Your task to perform on an android device: allow notifications from all sites in the chrome app Image 0: 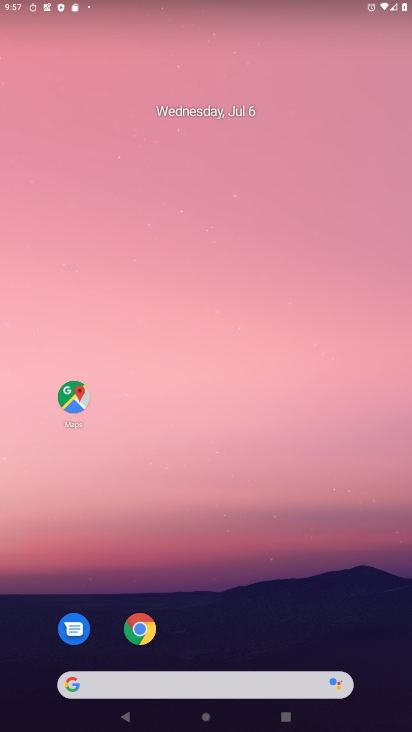
Step 0: click (136, 642)
Your task to perform on an android device: allow notifications from all sites in the chrome app Image 1: 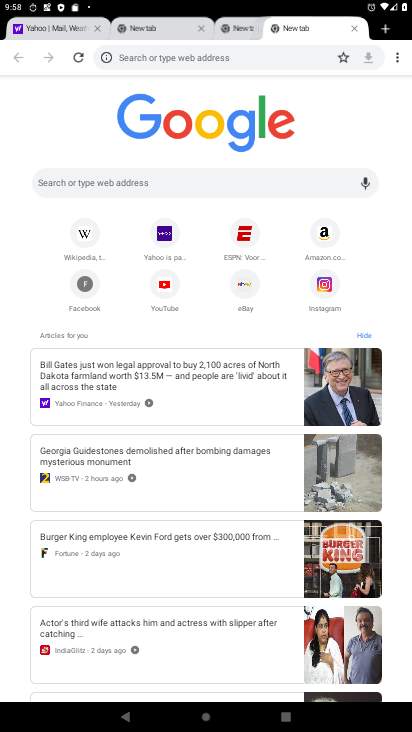
Step 1: press home button
Your task to perform on an android device: allow notifications from all sites in the chrome app Image 2: 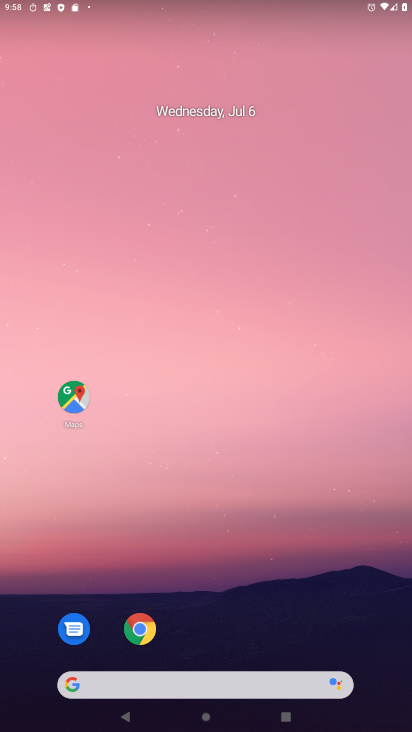
Step 2: drag from (41, 621) to (288, 45)
Your task to perform on an android device: allow notifications from all sites in the chrome app Image 3: 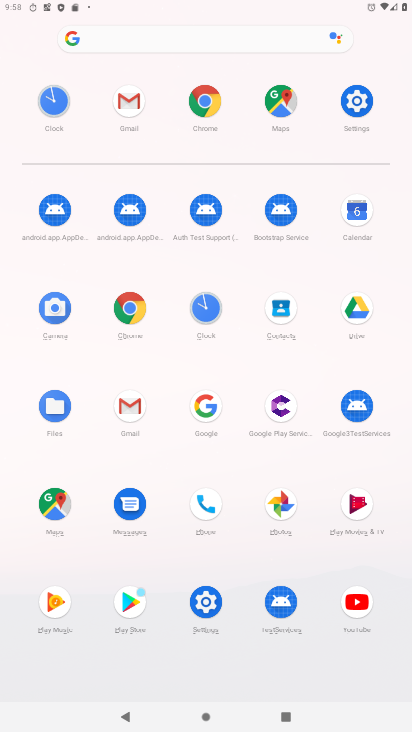
Step 3: click (366, 103)
Your task to perform on an android device: allow notifications from all sites in the chrome app Image 4: 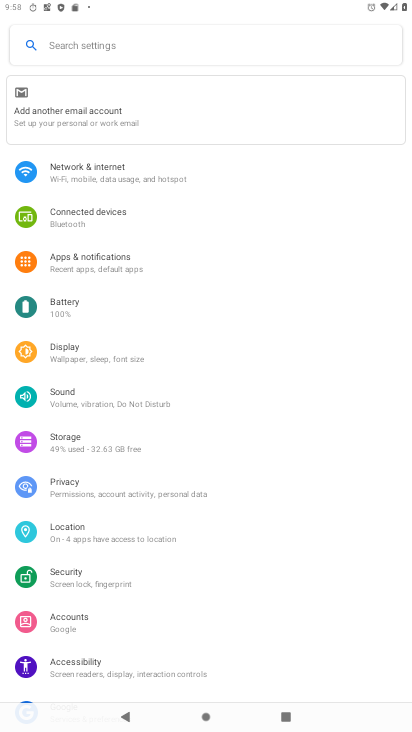
Step 4: click (157, 265)
Your task to perform on an android device: allow notifications from all sites in the chrome app Image 5: 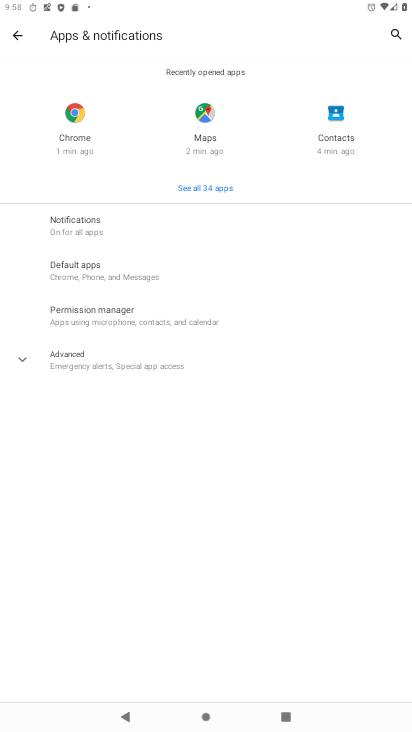
Step 5: click (84, 227)
Your task to perform on an android device: allow notifications from all sites in the chrome app Image 6: 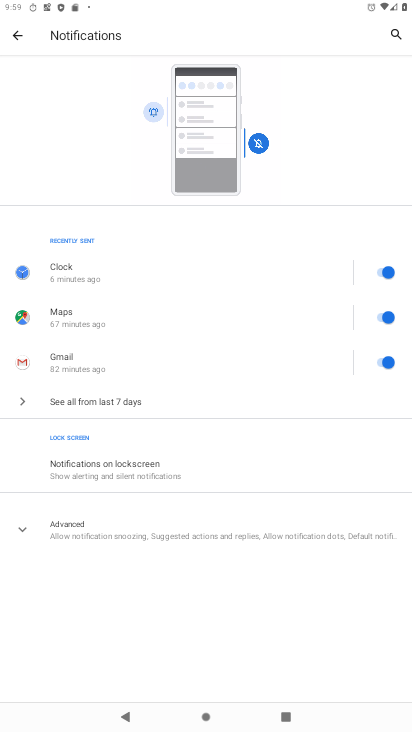
Step 6: task complete